Your task to perform on an android device: Open sound settings Image 0: 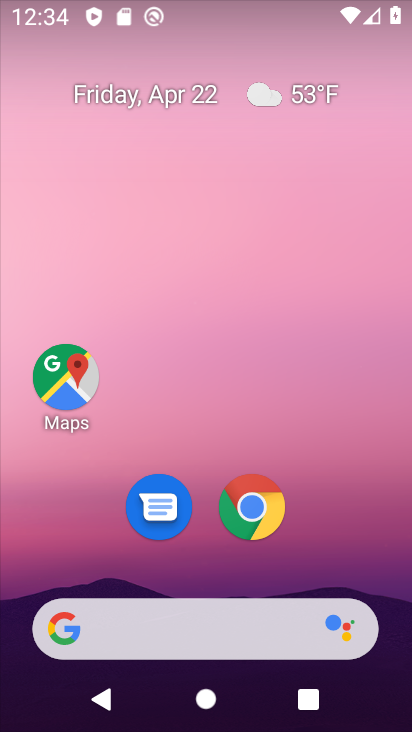
Step 0: drag from (209, 562) to (273, 123)
Your task to perform on an android device: Open sound settings Image 1: 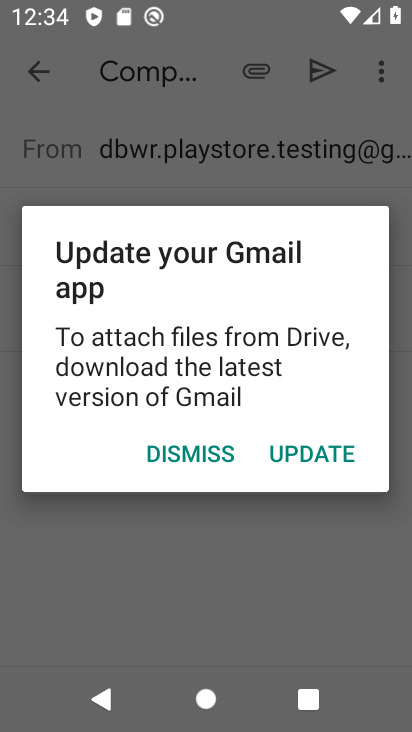
Step 1: press home button
Your task to perform on an android device: Open sound settings Image 2: 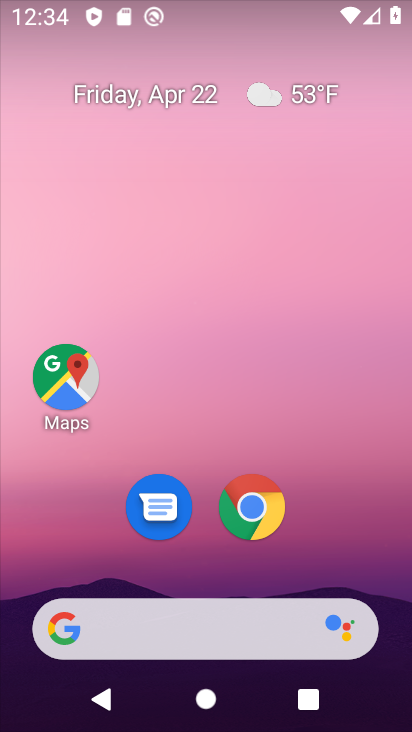
Step 2: drag from (190, 588) to (209, 191)
Your task to perform on an android device: Open sound settings Image 3: 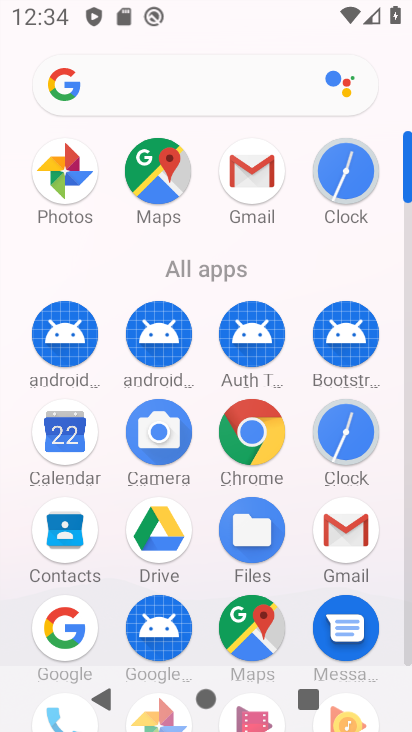
Step 3: drag from (219, 268) to (219, 34)
Your task to perform on an android device: Open sound settings Image 4: 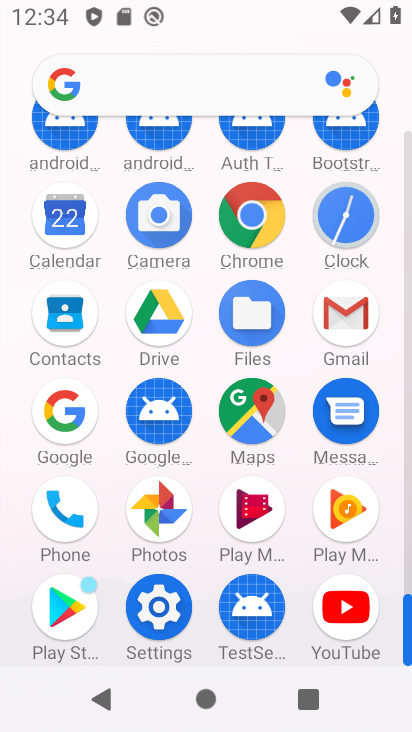
Step 4: click (157, 632)
Your task to perform on an android device: Open sound settings Image 5: 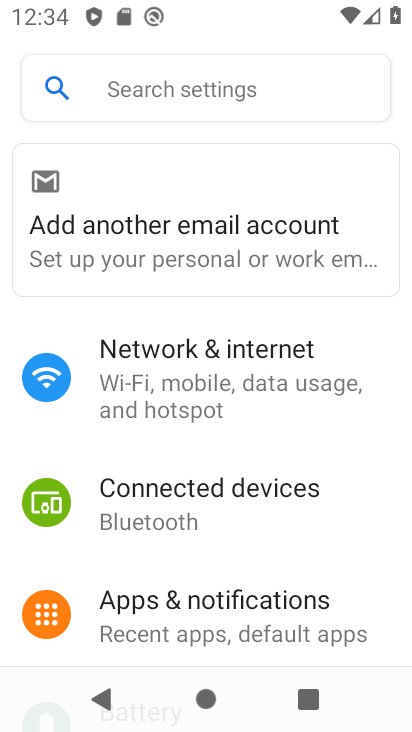
Step 5: drag from (235, 558) to (245, 210)
Your task to perform on an android device: Open sound settings Image 6: 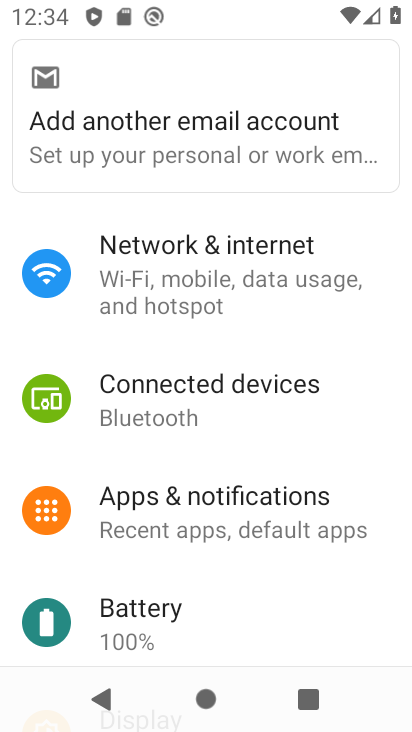
Step 6: drag from (210, 570) to (244, 258)
Your task to perform on an android device: Open sound settings Image 7: 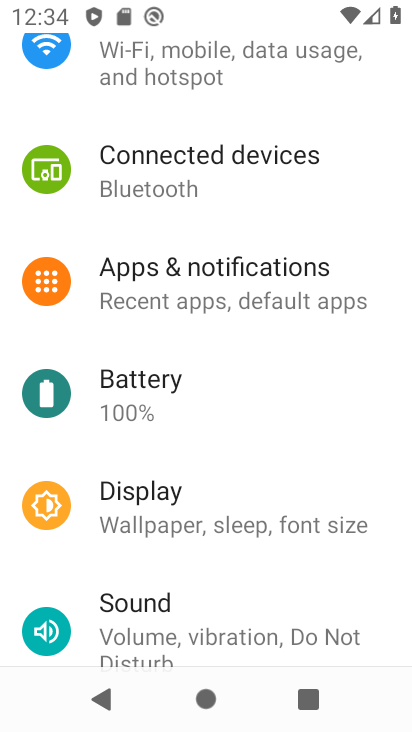
Step 7: click (188, 619)
Your task to perform on an android device: Open sound settings Image 8: 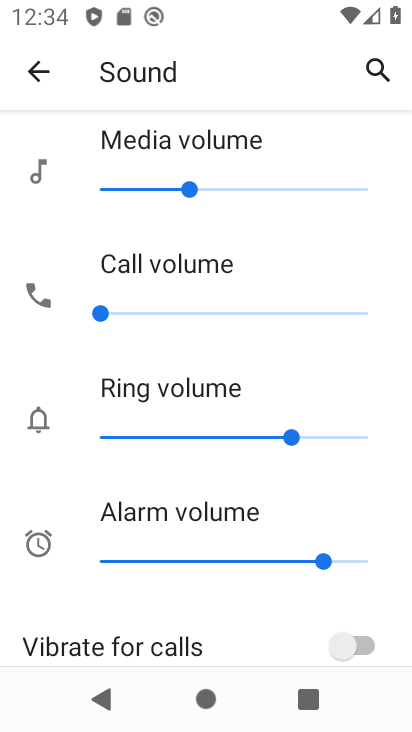
Step 8: task complete